Your task to perform on an android device: What is the capital of China? Image 0: 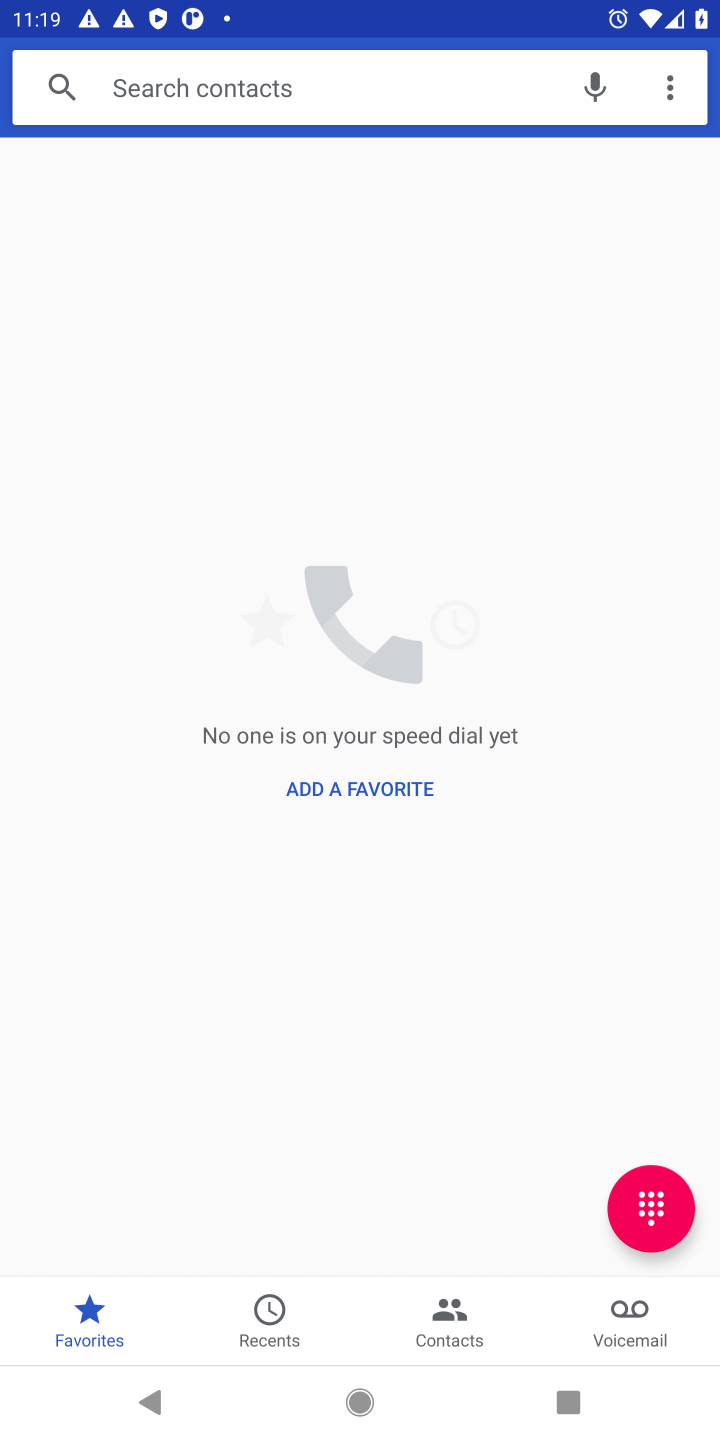
Step 0: drag from (477, 1228) to (513, 552)
Your task to perform on an android device: What is the capital of China? Image 1: 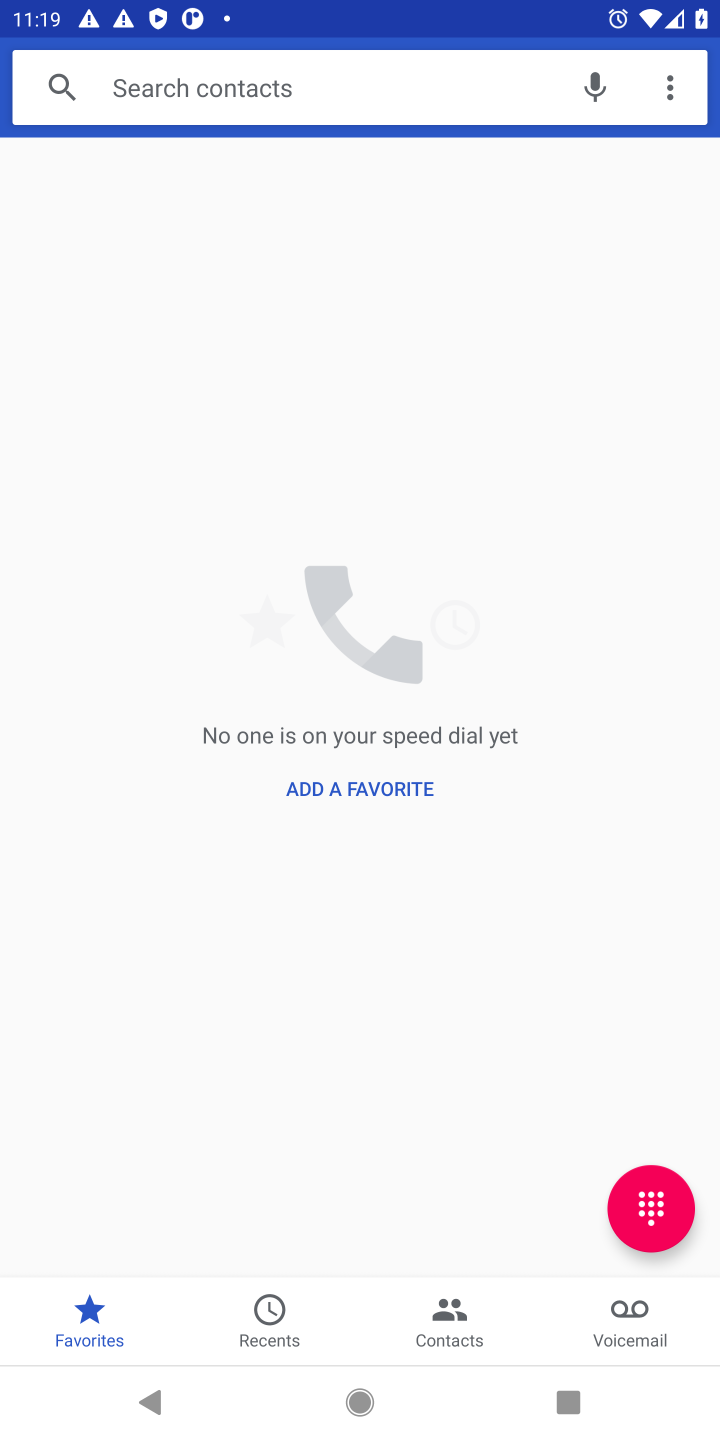
Step 1: press home button
Your task to perform on an android device: What is the capital of China? Image 2: 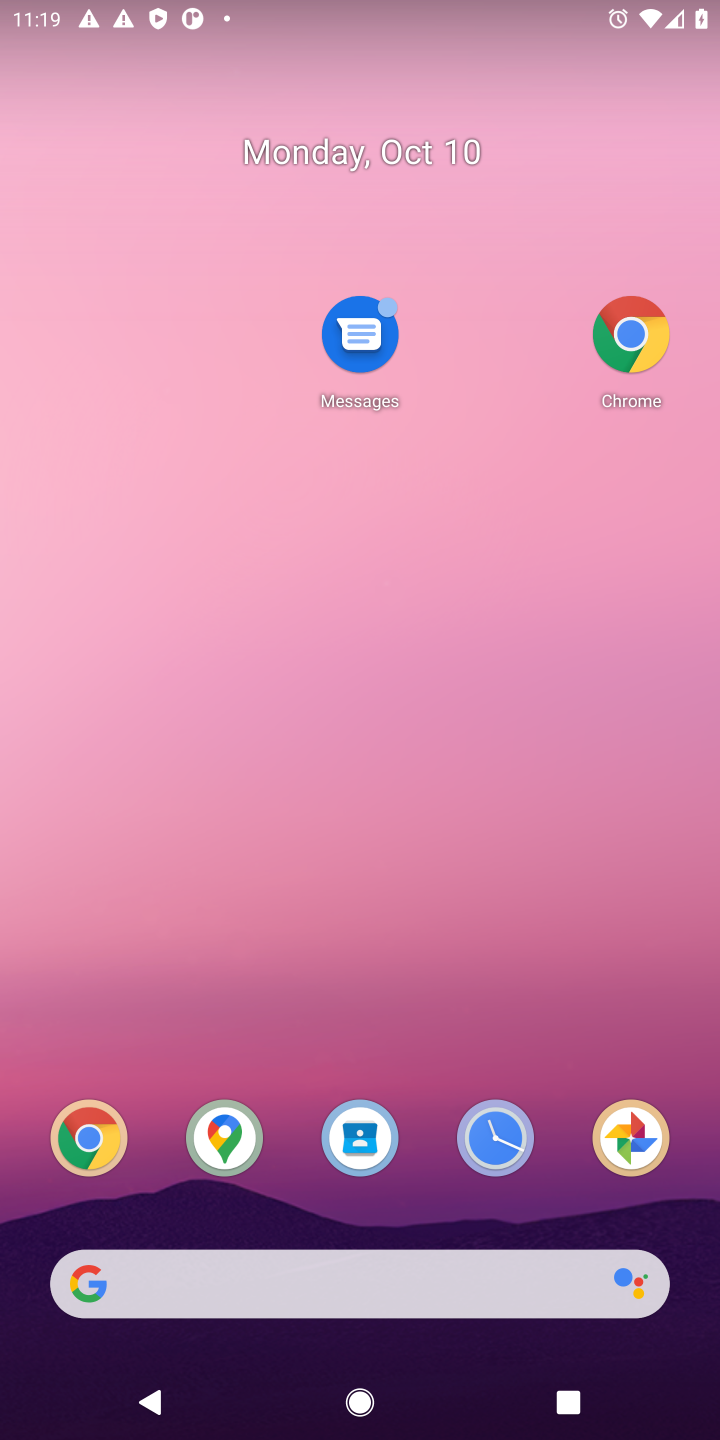
Step 2: click (641, 338)
Your task to perform on an android device: What is the capital of China? Image 3: 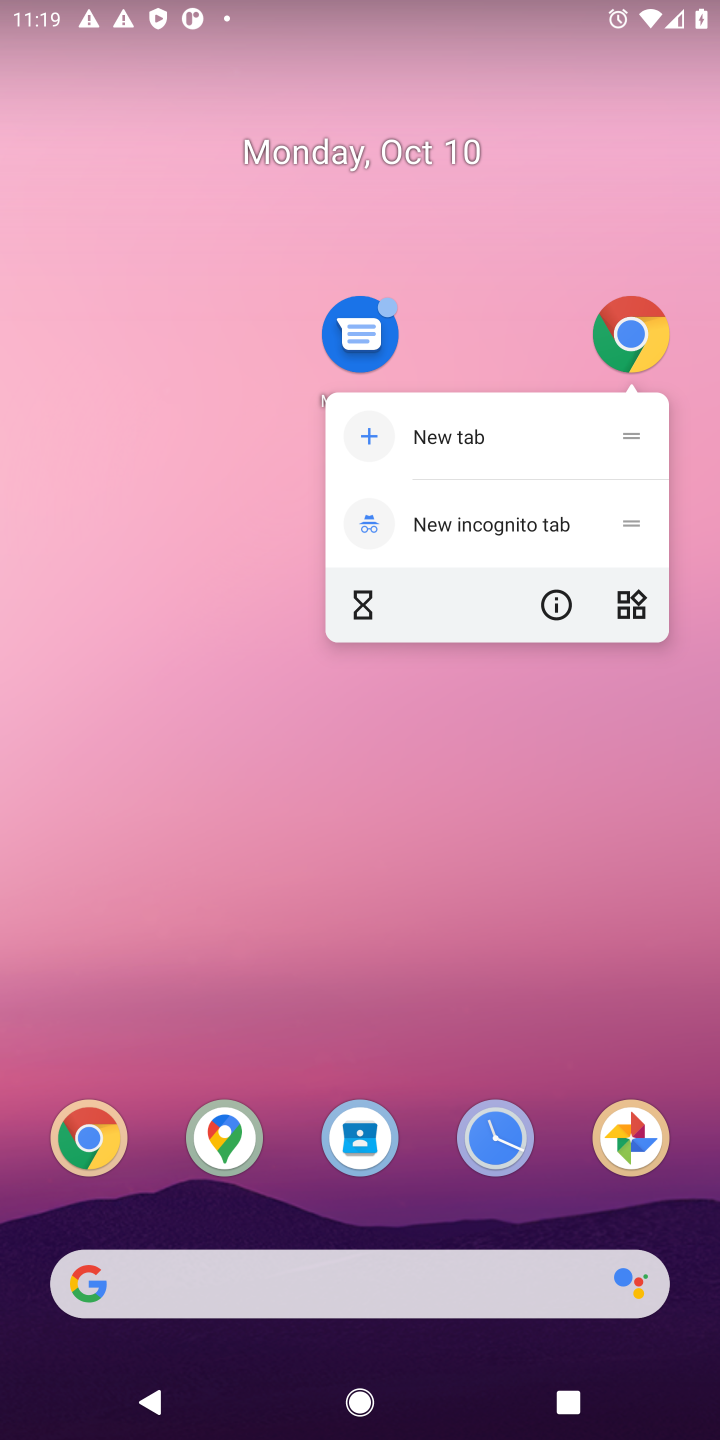
Step 3: click (620, 338)
Your task to perform on an android device: What is the capital of China? Image 4: 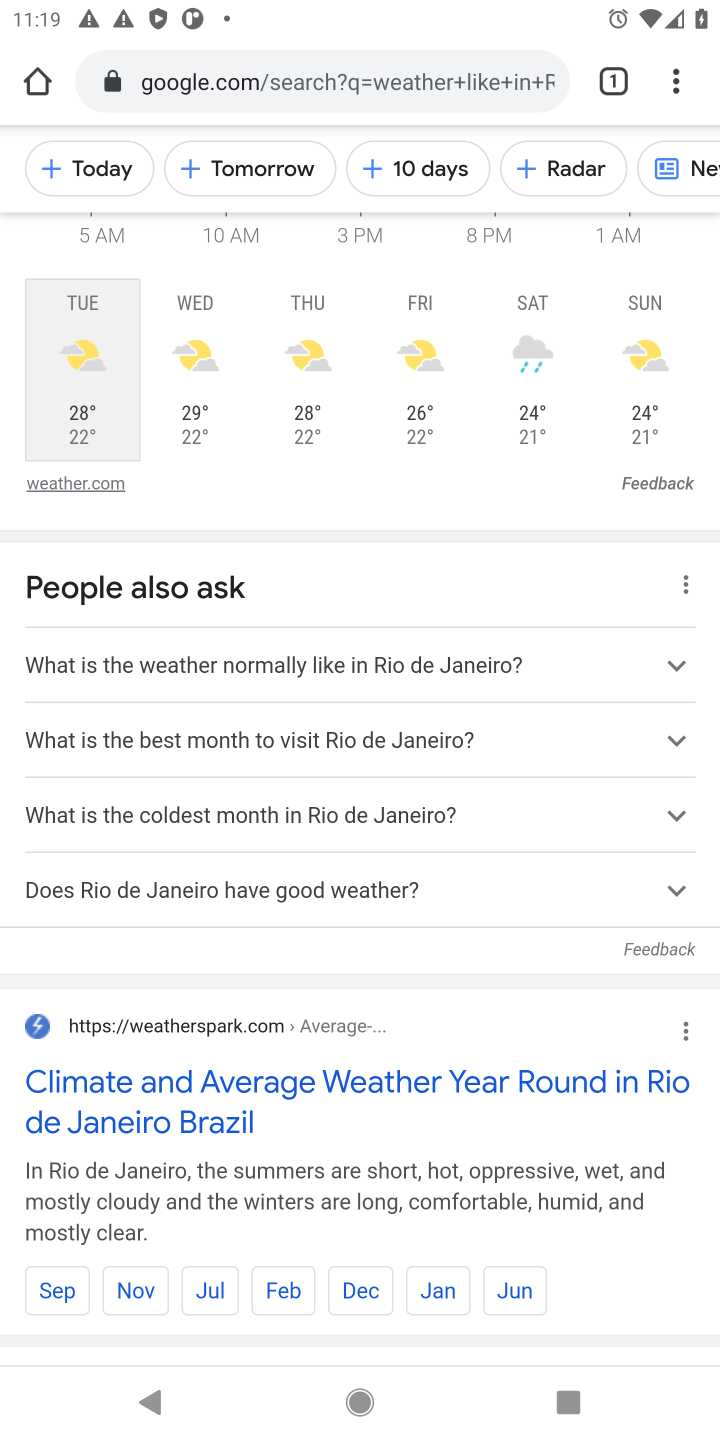
Step 4: click (287, 86)
Your task to perform on an android device: What is the capital of China? Image 5: 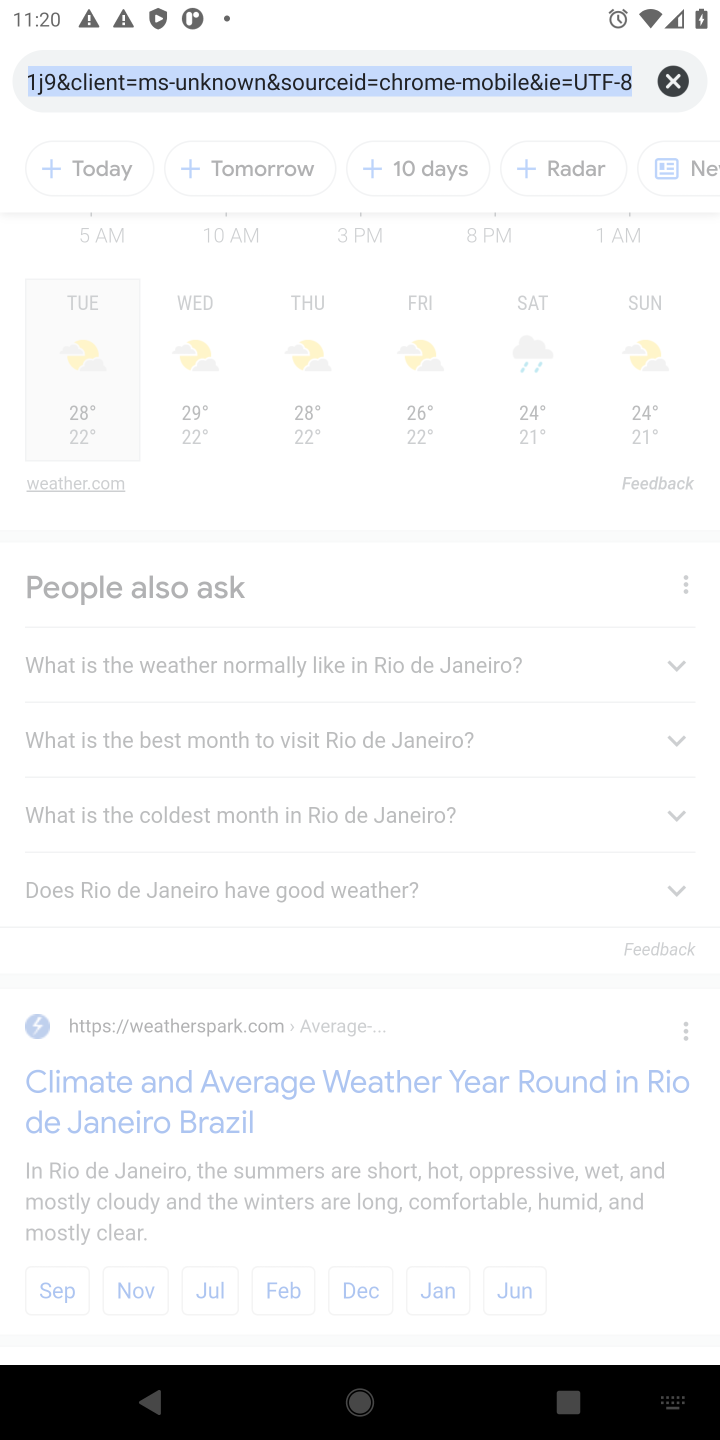
Step 5: type "capital of china"
Your task to perform on an android device: What is the capital of China? Image 6: 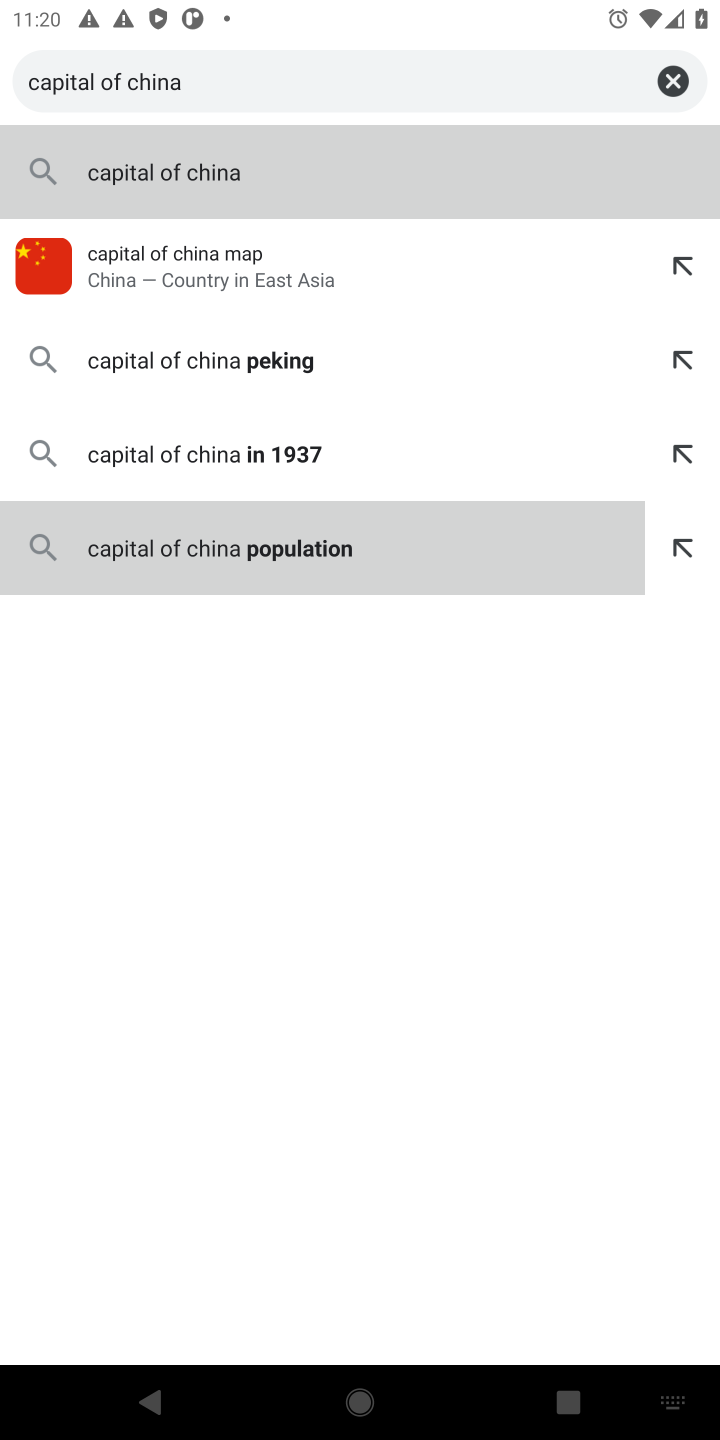
Step 6: type ""
Your task to perform on an android device: What is the capital of China? Image 7: 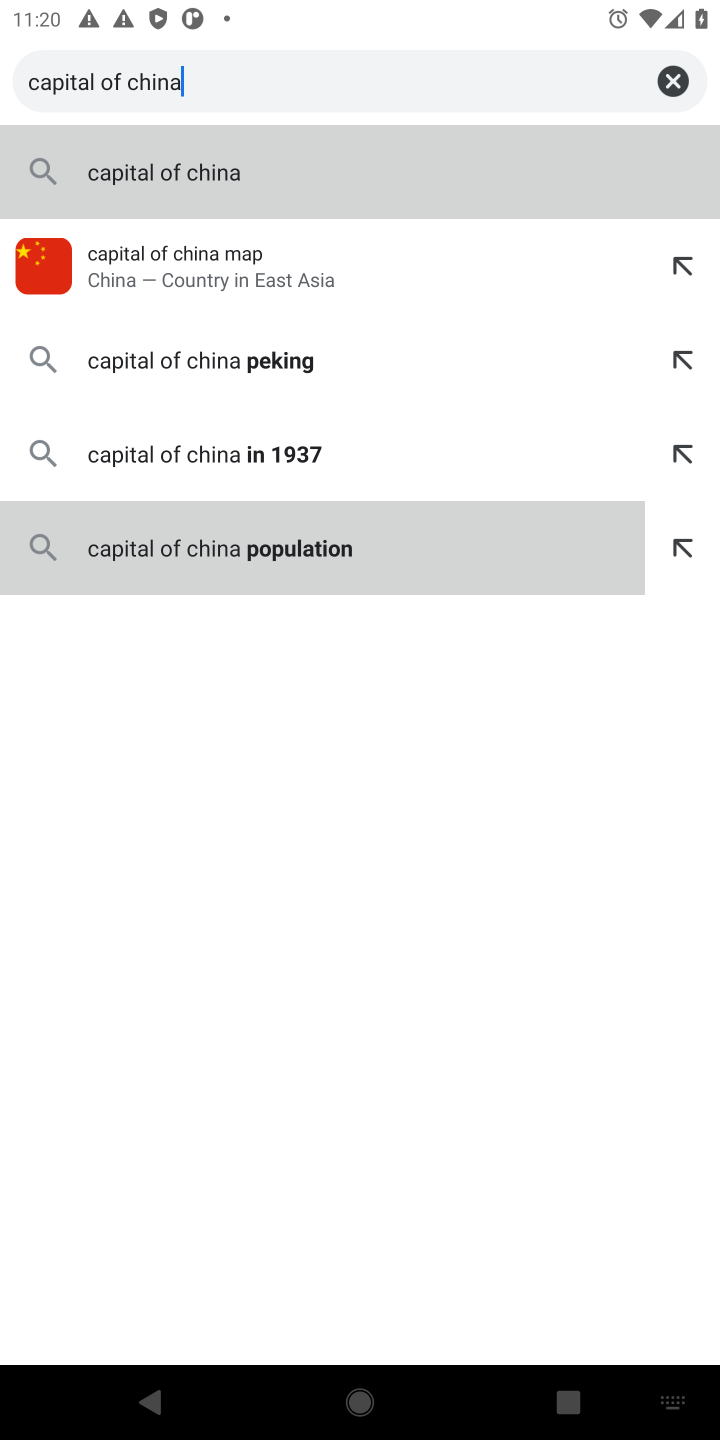
Step 7: press enter
Your task to perform on an android device: What is the capital of China? Image 8: 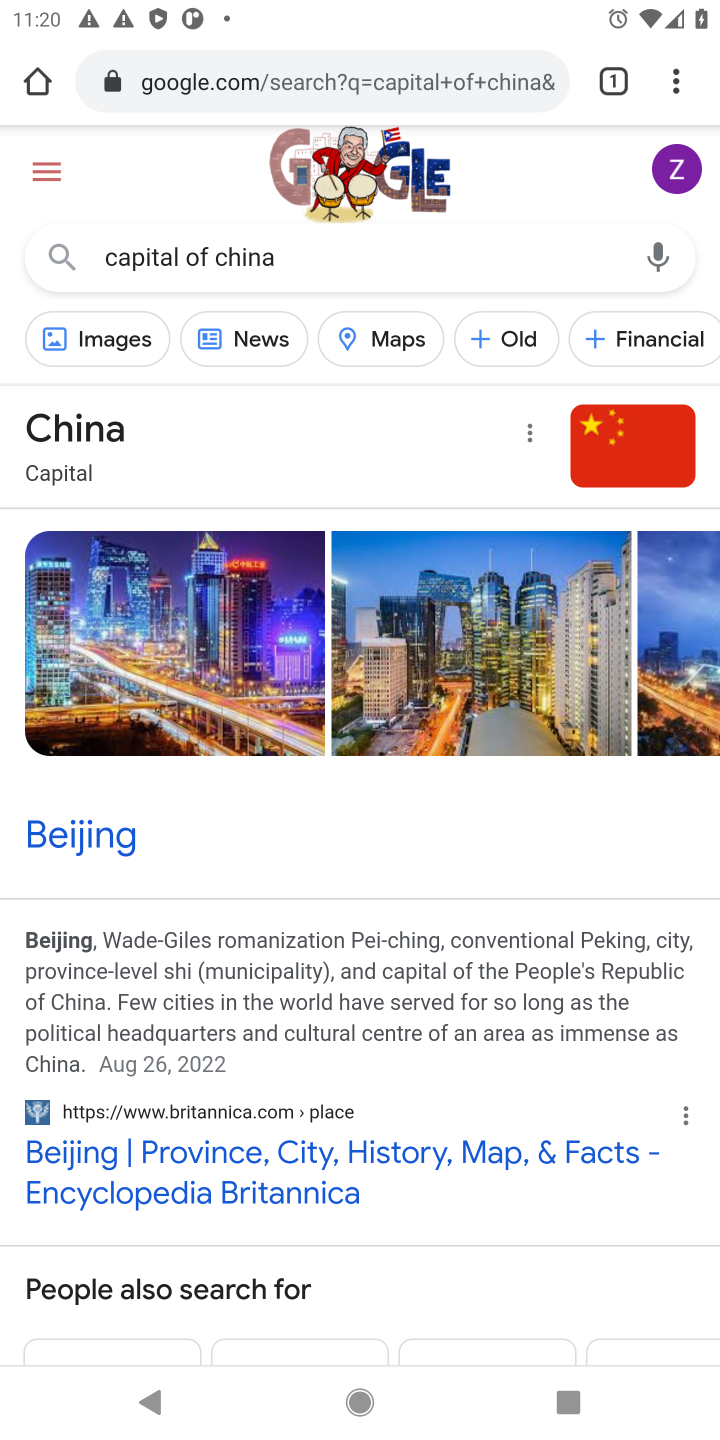
Step 8: task complete